Your task to perform on an android device: Open sound settings Image 0: 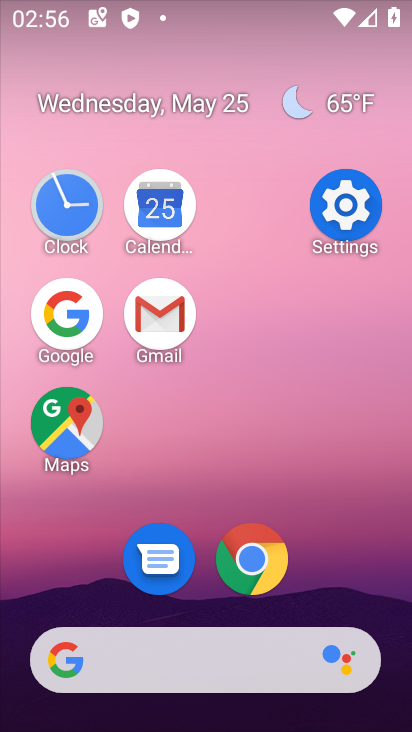
Step 0: click (322, 209)
Your task to perform on an android device: Open sound settings Image 1: 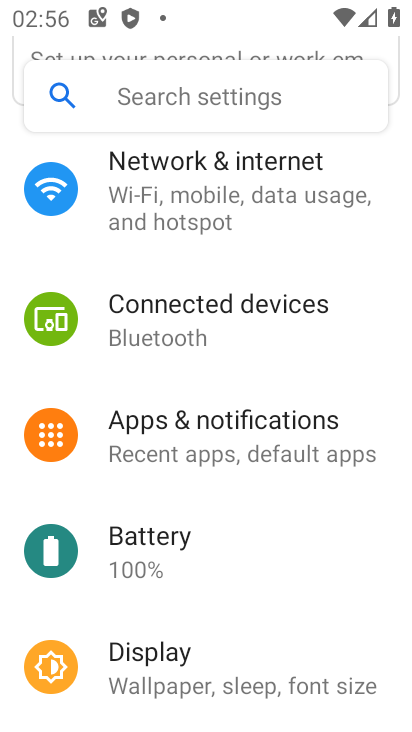
Step 1: drag from (271, 585) to (246, 122)
Your task to perform on an android device: Open sound settings Image 2: 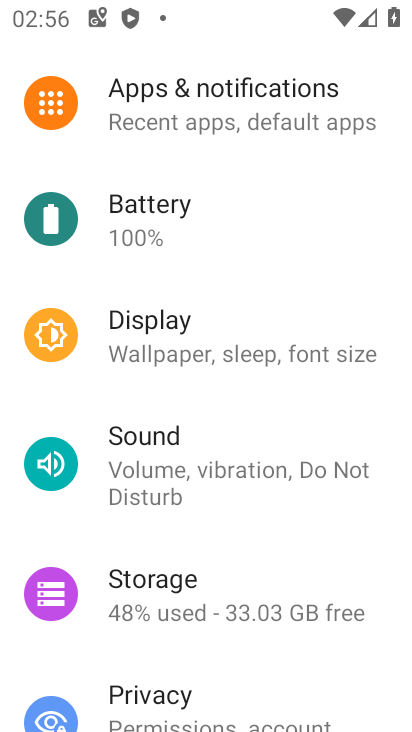
Step 2: click (279, 446)
Your task to perform on an android device: Open sound settings Image 3: 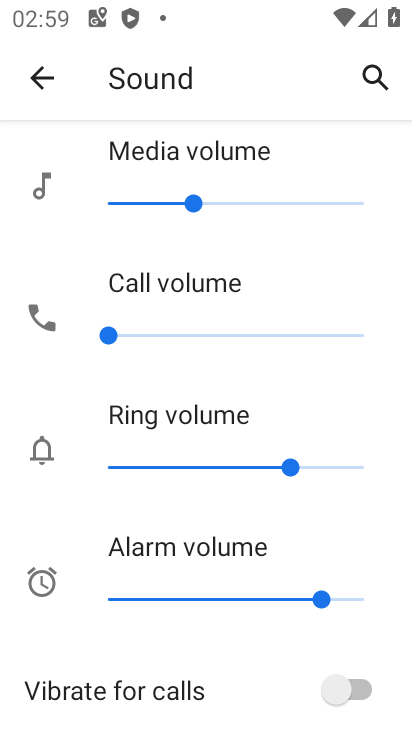
Step 3: task complete